Your task to perform on an android device: delete a single message in the gmail app Image 0: 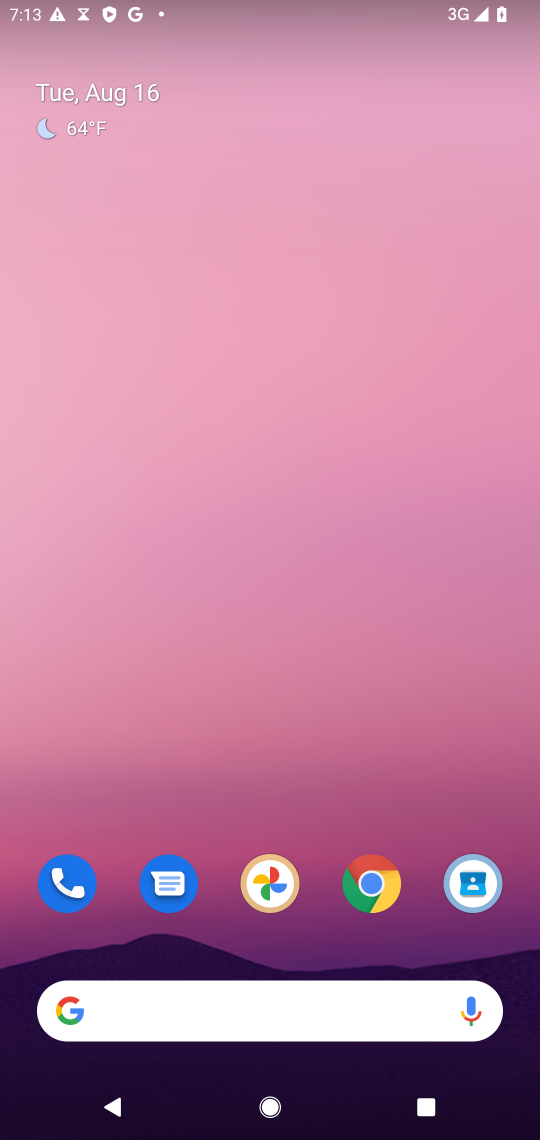
Step 0: drag from (259, 1011) to (314, 264)
Your task to perform on an android device: delete a single message in the gmail app Image 1: 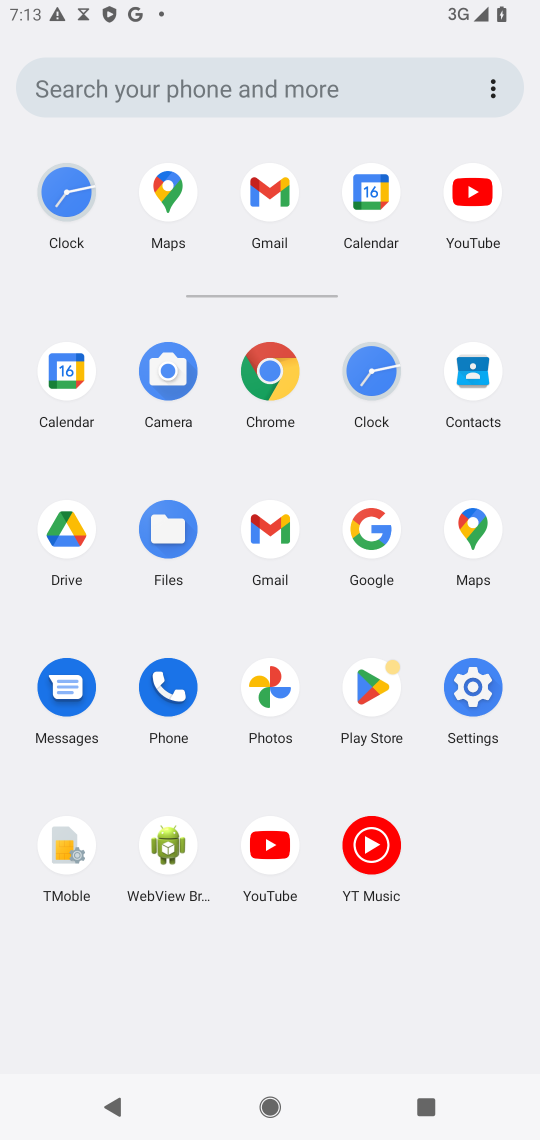
Step 1: click (269, 528)
Your task to perform on an android device: delete a single message in the gmail app Image 2: 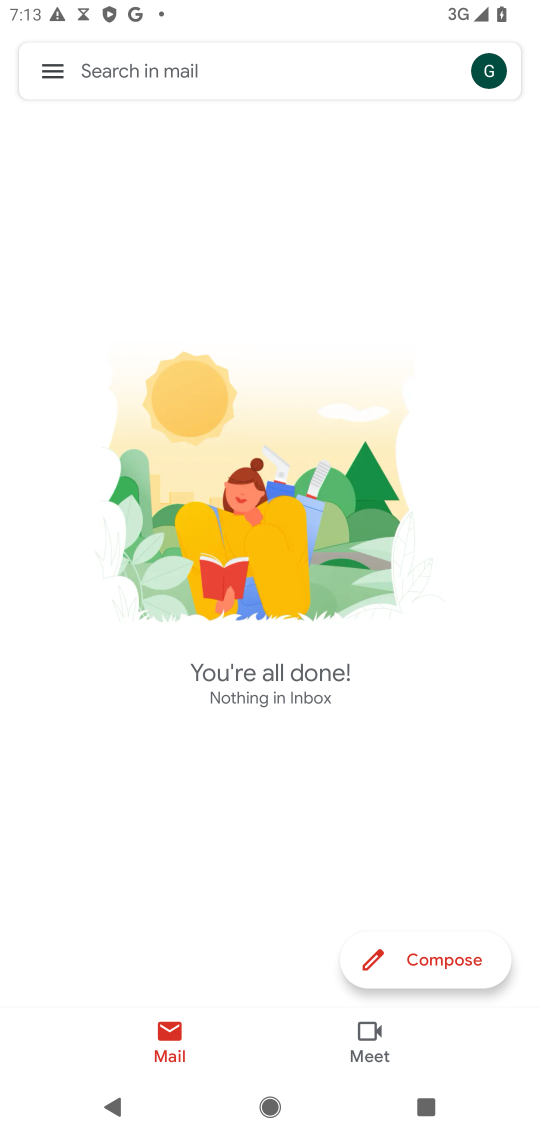
Step 2: click (50, 78)
Your task to perform on an android device: delete a single message in the gmail app Image 3: 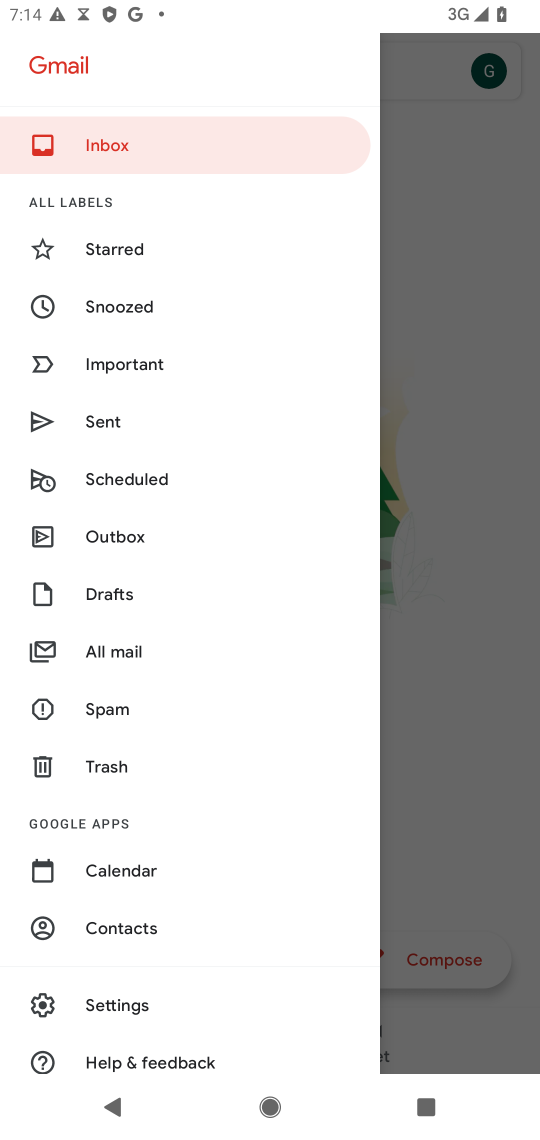
Step 3: drag from (135, 828) to (251, 632)
Your task to perform on an android device: delete a single message in the gmail app Image 4: 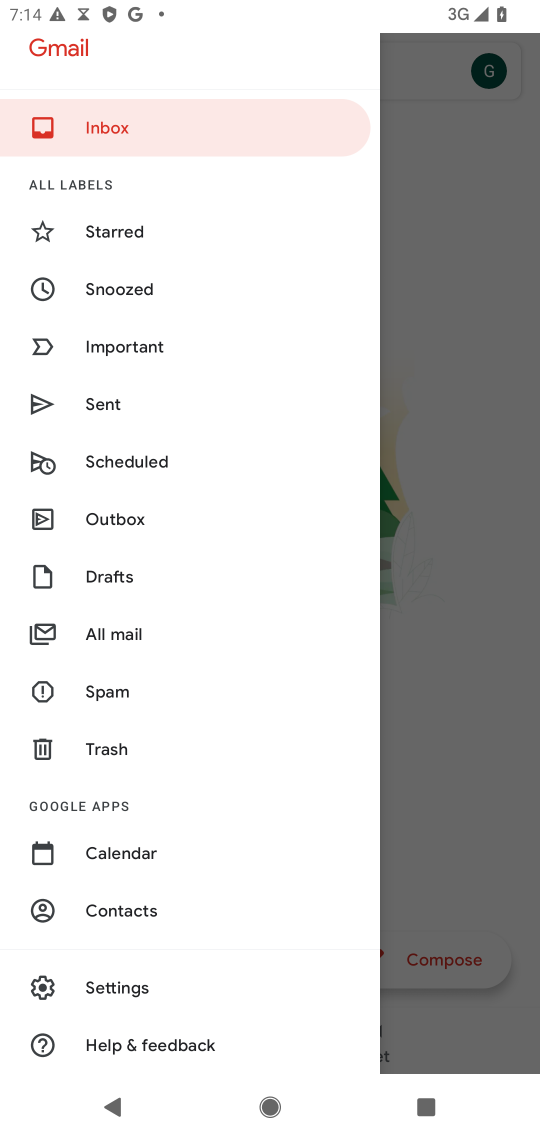
Step 4: click (108, 628)
Your task to perform on an android device: delete a single message in the gmail app Image 5: 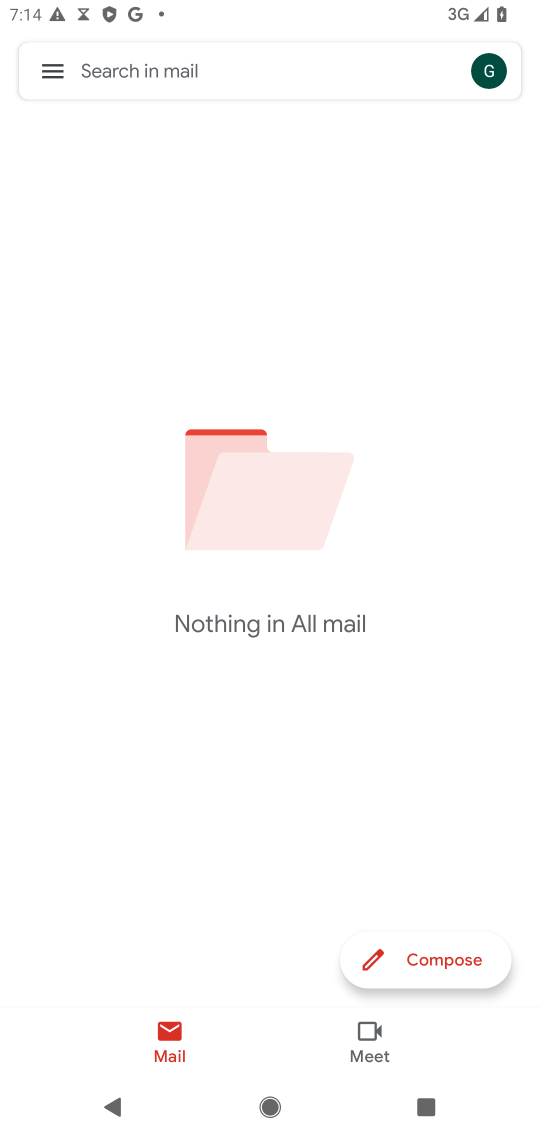
Step 5: click (46, 67)
Your task to perform on an android device: delete a single message in the gmail app Image 6: 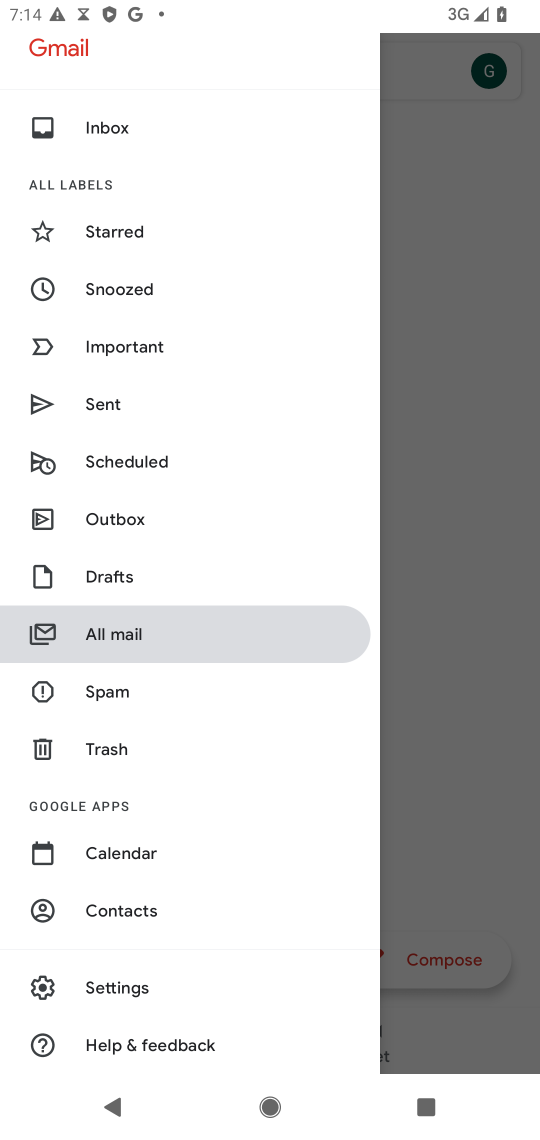
Step 6: task complete